Your task to perform on an android device: turn on wifi Image 0: 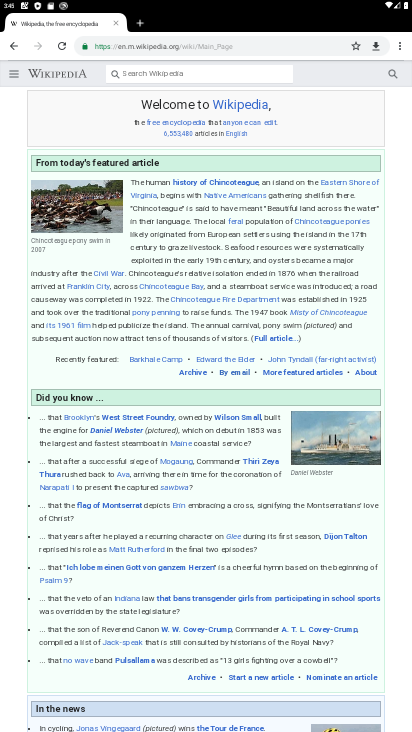
Step 0: drag from (278, 5) to (316, 457)
Your task to perform on an android device: turn on wifi Image 1: 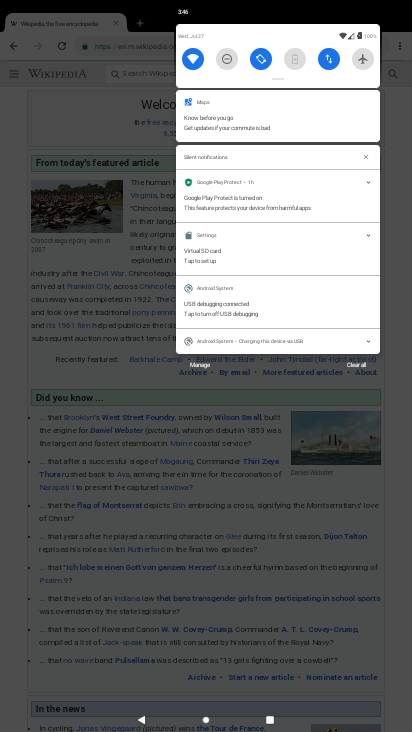
Step 1: task complete